Your task to perform on an android device: check google app version Image 0: 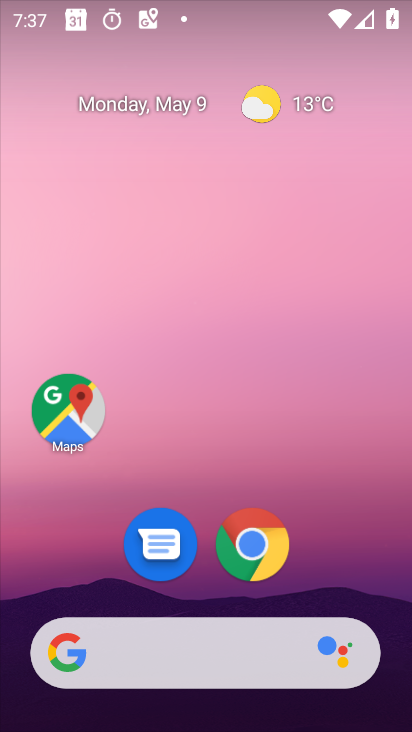
Step 0: drag from (358, 548) to (369, 89)
Your task to perform on an android device: check google app version Image 1: 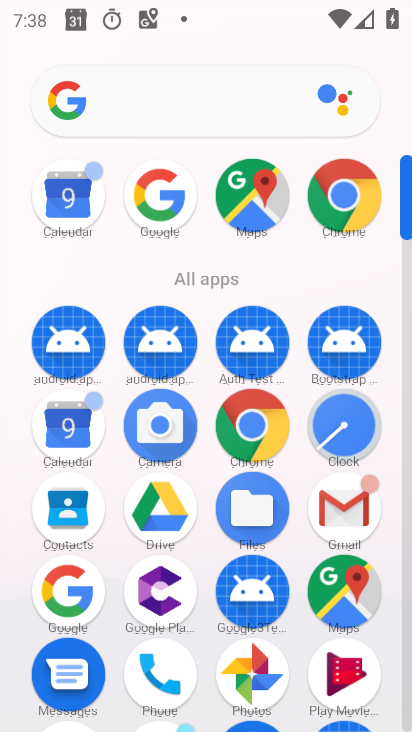
Step 1: click (66, 585)
Your task to perform on an android device: check google app version Image 2: 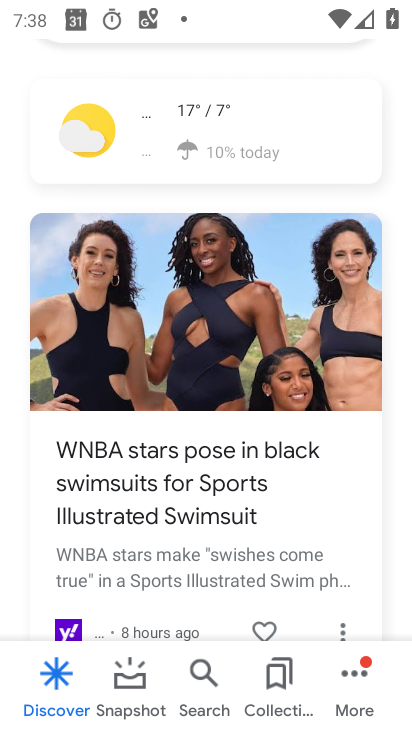
Step 2: drag from (282, 609) to (291, 413)
Your task to perform on an android device: check google app version Image 3: 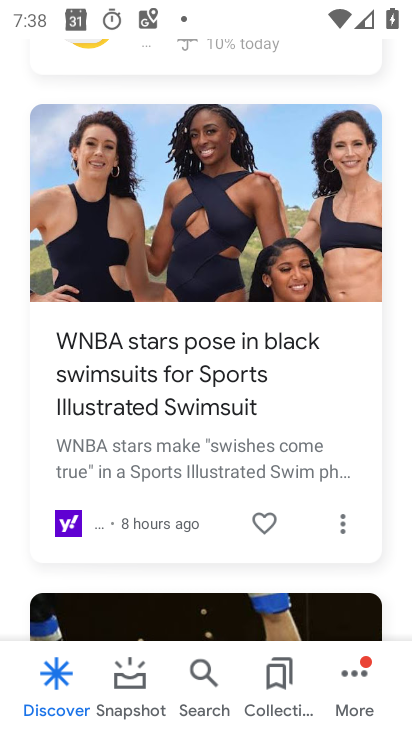
Step 3: click (353, 690)
Your task to perform on an android device: check google app version Image 4: 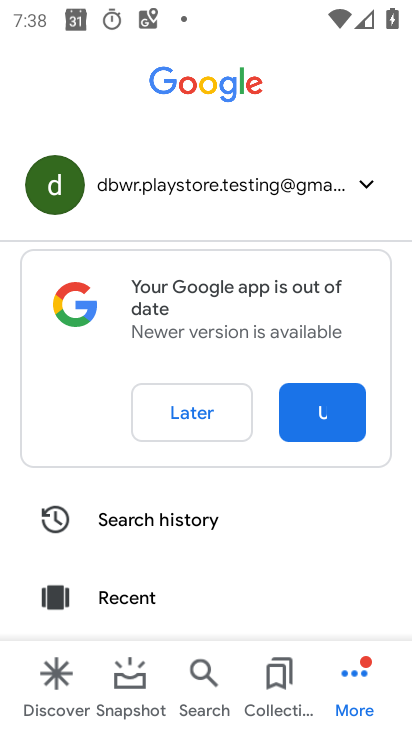
Step 4: drag from (298, 579) to (286, 90)
Your task to perform on an android device: check google app version Image 5: 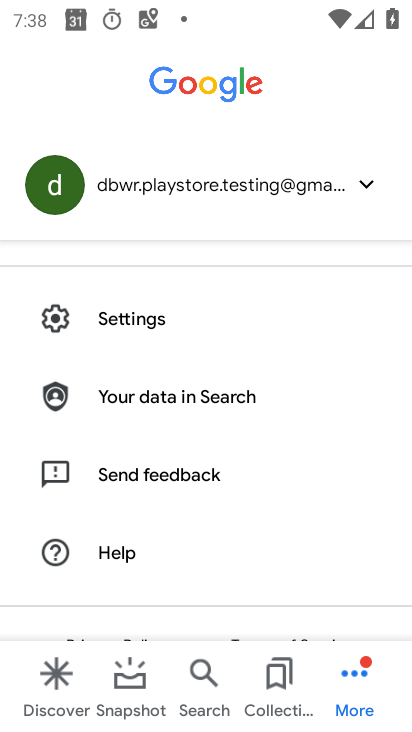
Step 5: drag from (194, 591) to (182, 97)
Your task to perform on an android device: check google app version Image 6: 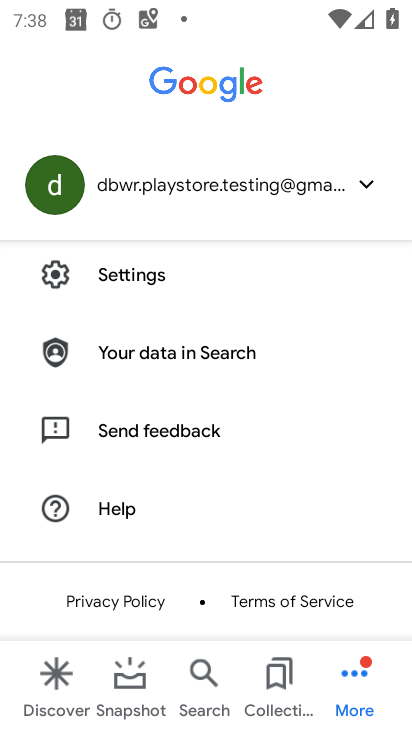
Step 6: click (357, 709)
Your task to perform on an android device: check google app version Image 7: 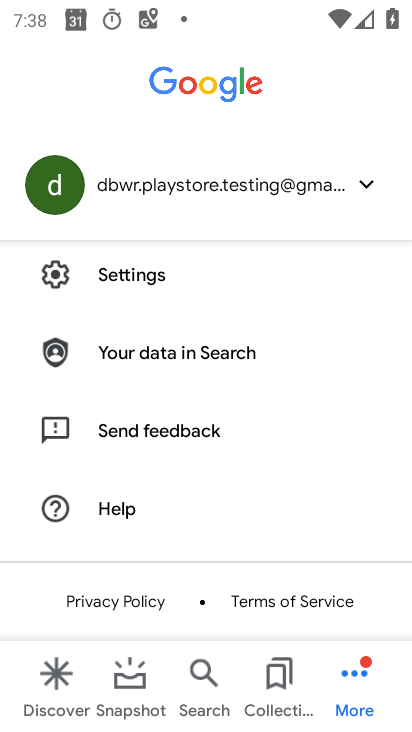
Step 7: click (353, 699)
Your task to perform on an android device: check google app version Image 8: 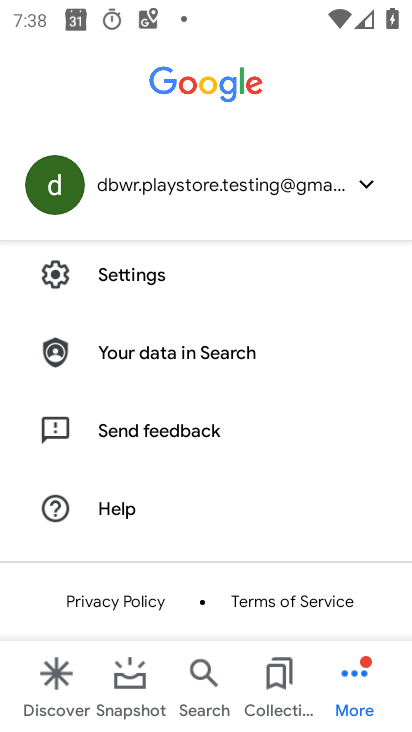
Step 8: click (121, 294)
Your task to perform on an android device: check google app version Image 9: 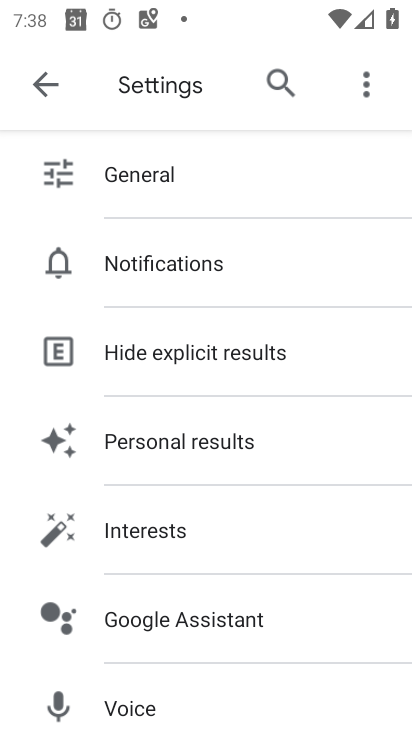
Step 9: drag from (290, 603) to (311, 190)
Your task to perform on an android device: check google app version Image 10: 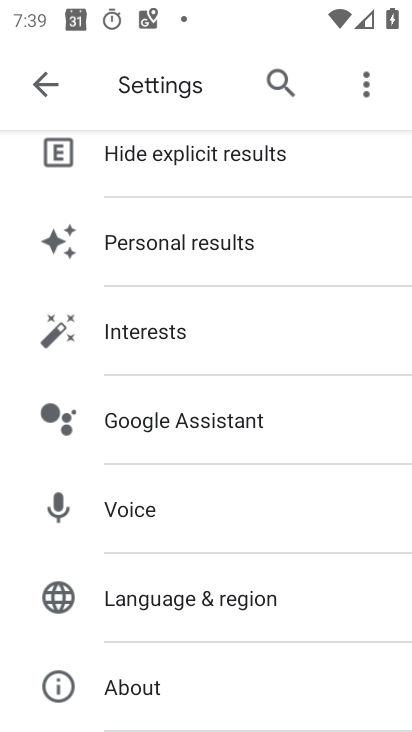
Step 10: drag from (257, 667) to (324, 220)
Your task to perform on an android device: check google app version Image 11: 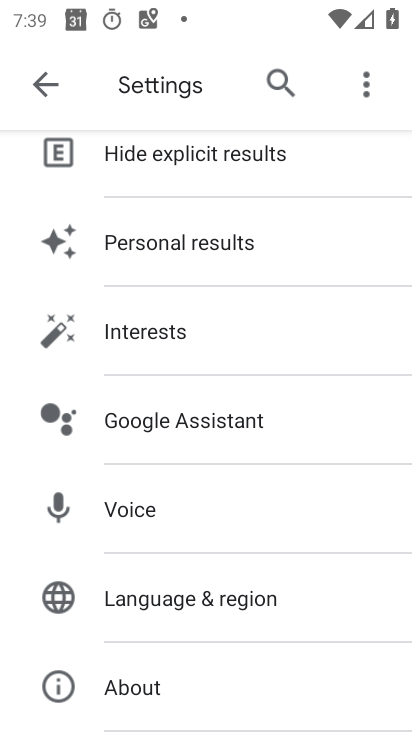
Step 11: click (211, 696)
Your task to perform on an android device: check google app version Image 12: 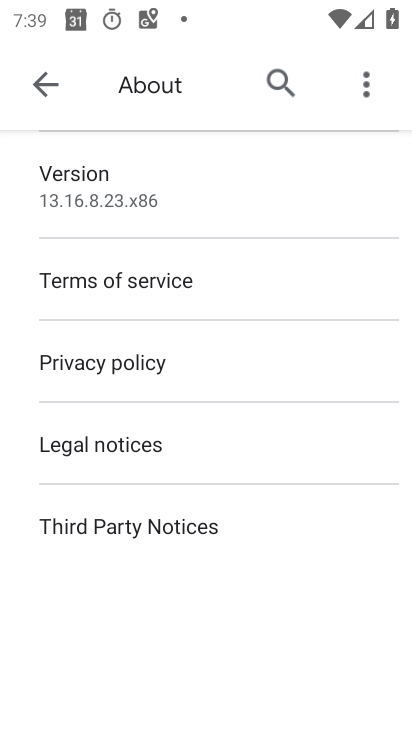
Step 12: click (137, 186)
Your task to perform on an android device: check google app version Image 13: 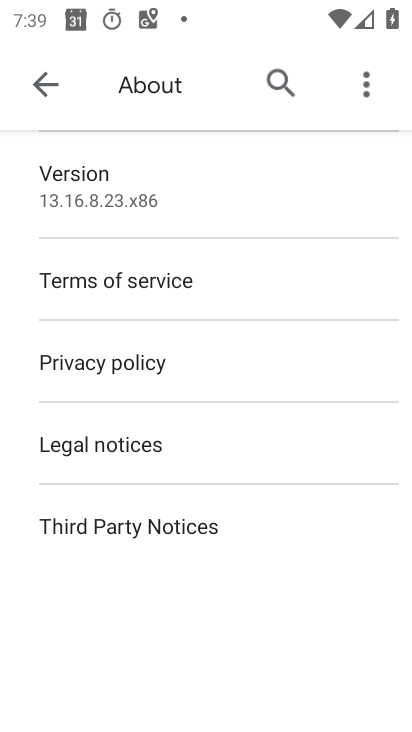
Step 13: click (133, 182)
Your task to perform on an android device: check google app version Image 14: 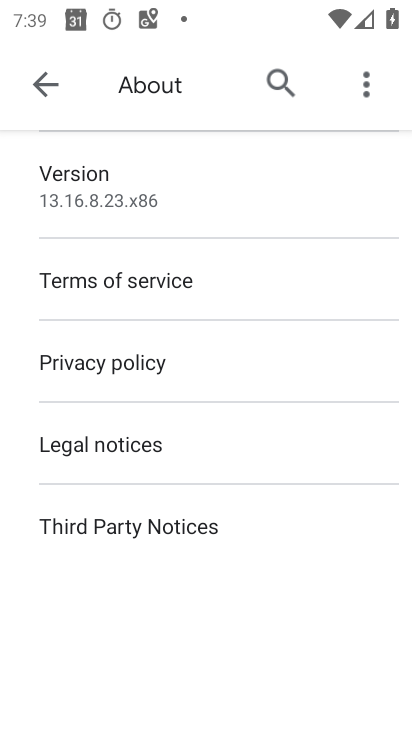
Step 14: click (214, 201)
Your task to perform on an android device: check google app version Image 15: 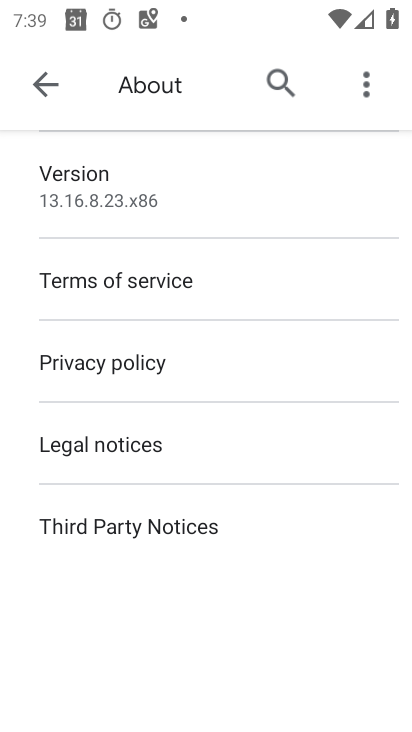
Step 15: task complete